Your task to perform on an android device: create a new album in the google photos Image 0: 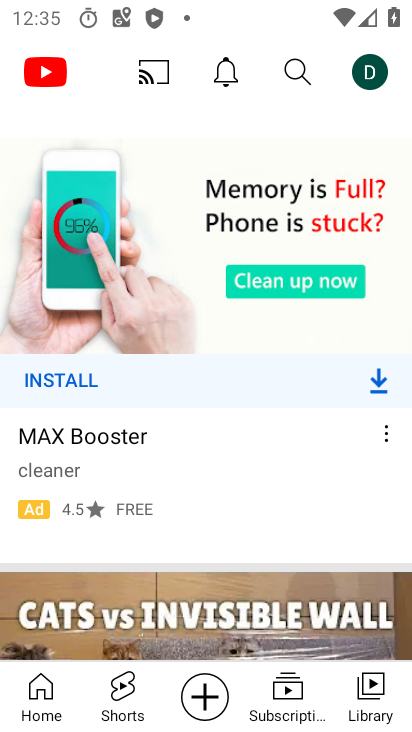
Step 0: press home button
Your task to perform on an android device: create a new album in the google photos Image 1: 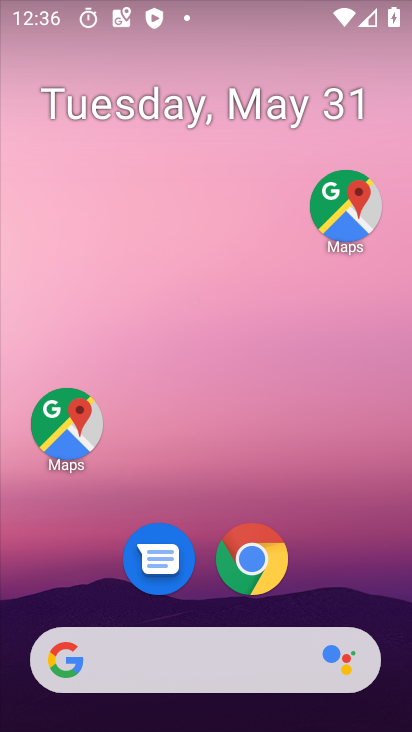
Step 1: drag from (359, 563) to (234, 98)
Your task to perform on an android device: create a new album in the google photos Image 2: 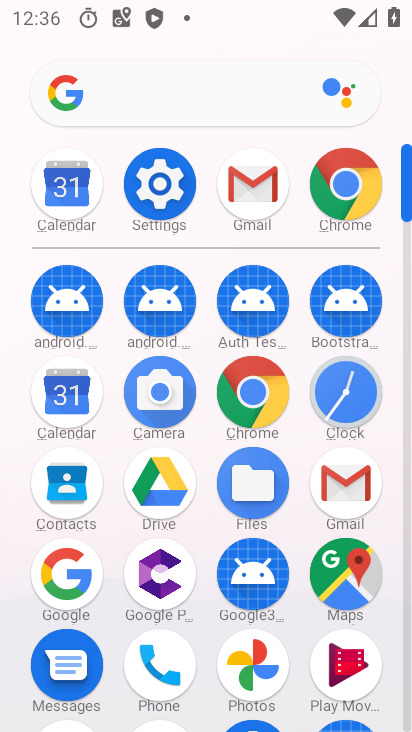
Step 2: click (241, 680)
Your task to perform on an android device: create a new album in the google photos Image 3: 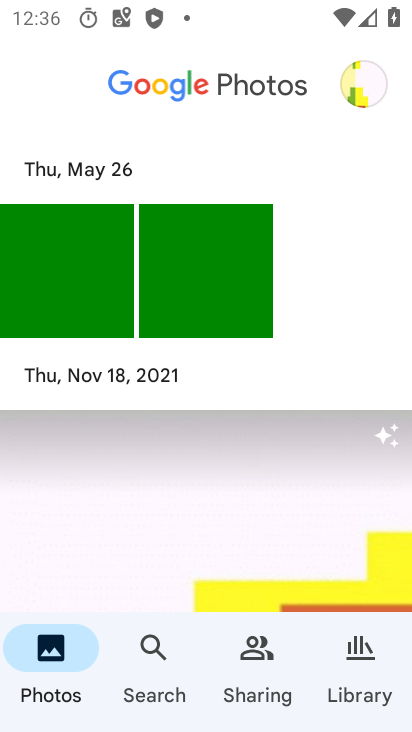
Step 3: click (356, 649)
Your task to perform on an android device: create a new album in the google photos Image 4: 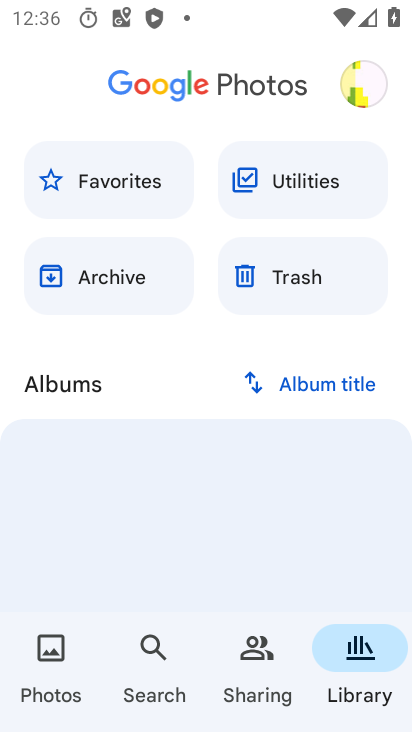
Step 4: drag from (318, 531) to (320, 199)
Your task to perform on an android device: create a new album in the google photos Image 5: 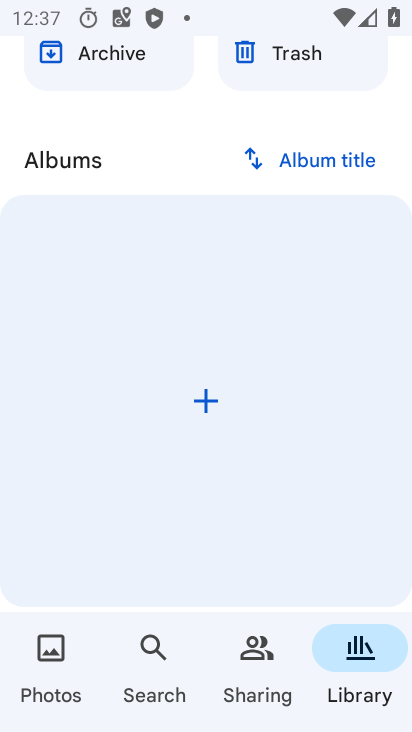
Step 5: click (217, 387)
Your task to perform on an android device: create a new album in the google photos Image 6: 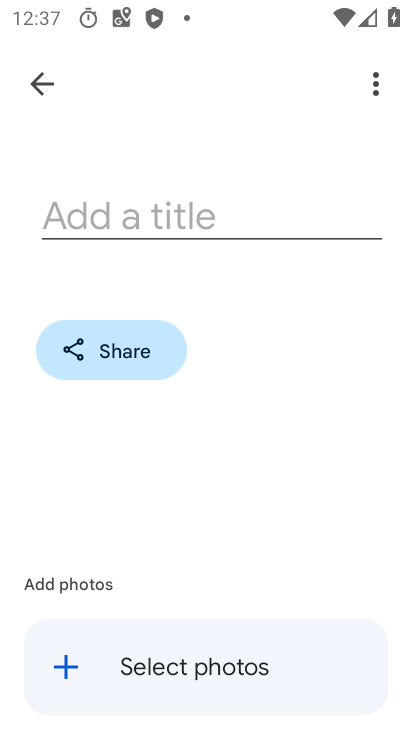
Step 6: click (229, 221)
Your task to perform on an android device: create a new album in the google photos Image 7: 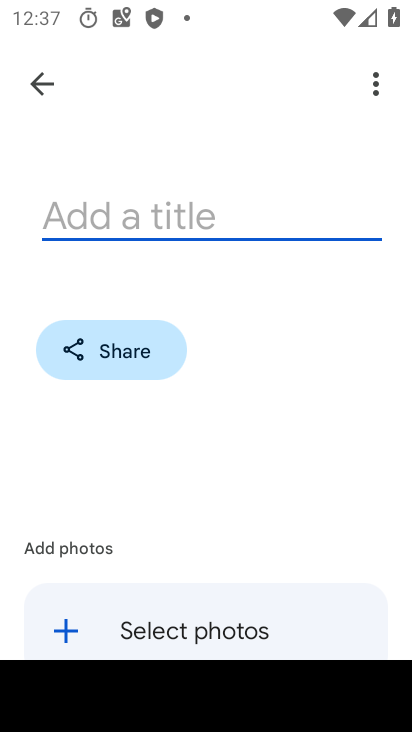
Step 7: type "kendi"
Your task to perform on an android device: create a new album in the google photos Image 8: 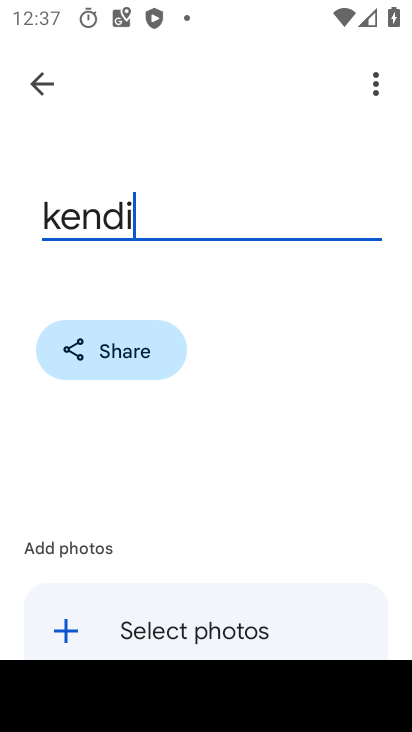
Step 8: click (255, 623)
Your task to perform on an android device: create a new album in the google photos Image 9: 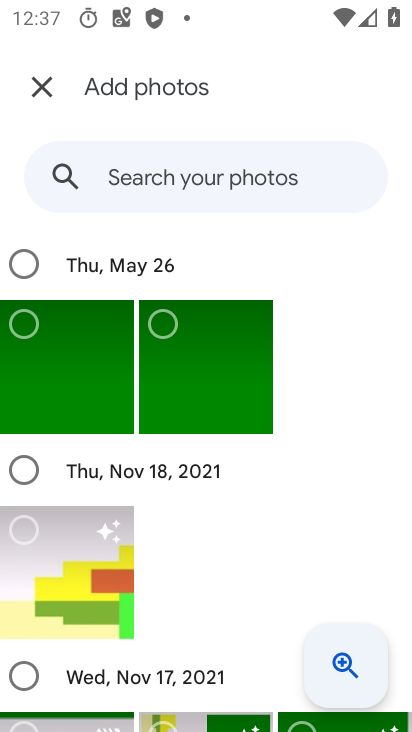
Step 9: click (38, 330)
Your task to perform on an android device: create a new album in the google photos Image 10: 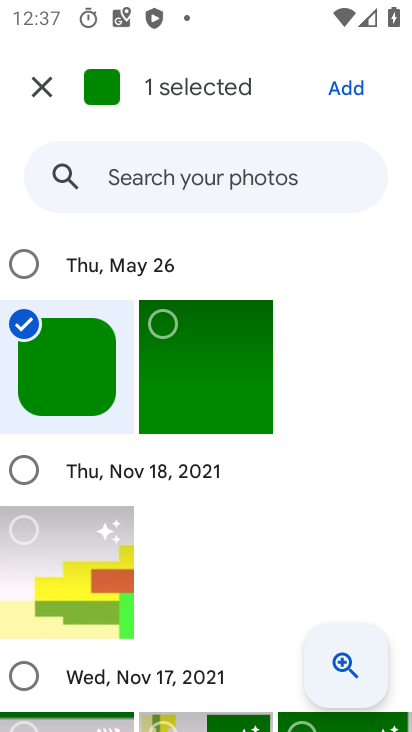
Step 10: click (358, 81)
Your task to perform on an android device: create a new album in the google photos Image 11: 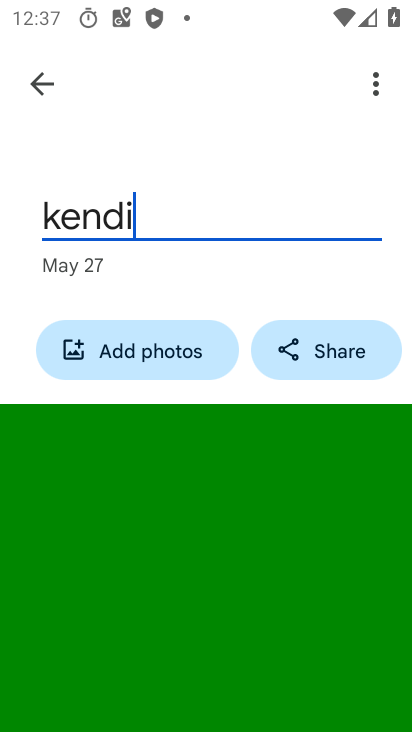
Step 11: click (51, 83)
Your task to perform on an android device: create a new album in the google photos Image 12: 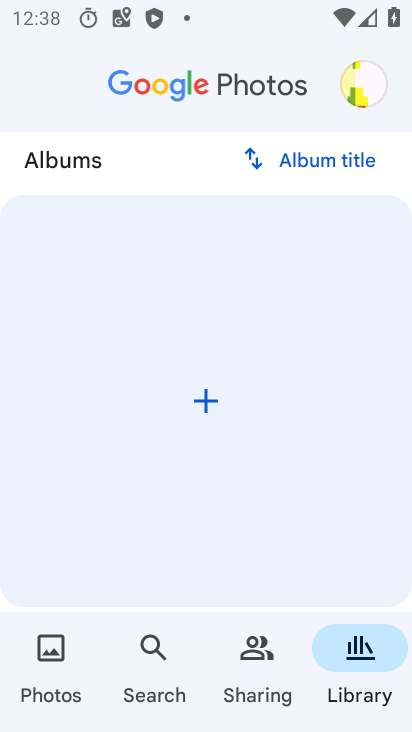
Step 12: click (217, 397)
Your task to perform on an android device: create a new album in the google photos Image 13: 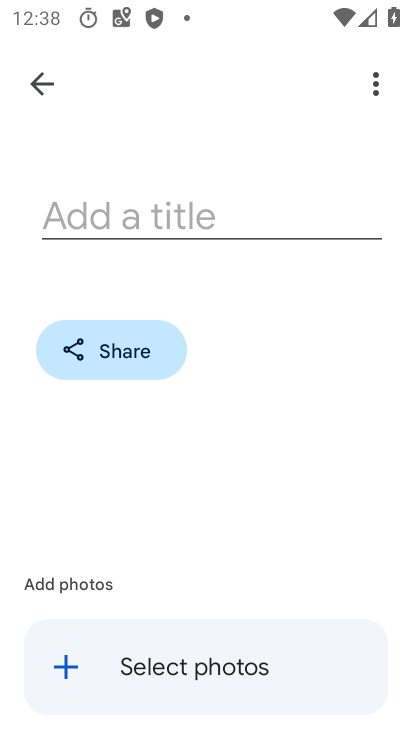
Step 13: click (193, 204)
Your task to perform on an android device: create a new album in the google photos Image 14: 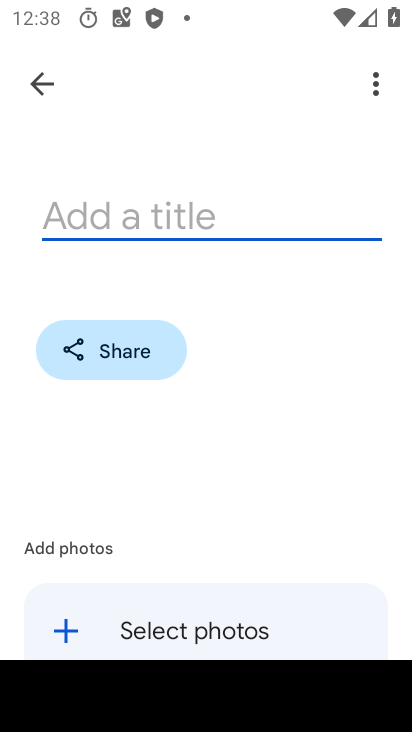
Step 14: type "kendi"
Your task to perform on an android device: create a new album in the google photos Image 15: 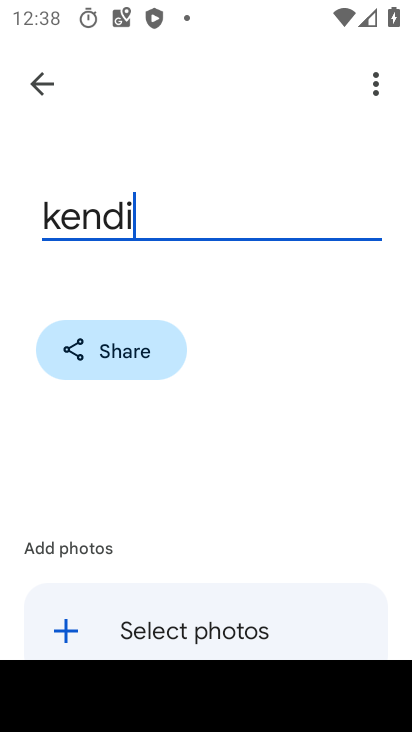
Step 15: click (228, 624)
Your task to perform on an android device: create a new album in the google photos Image 16: 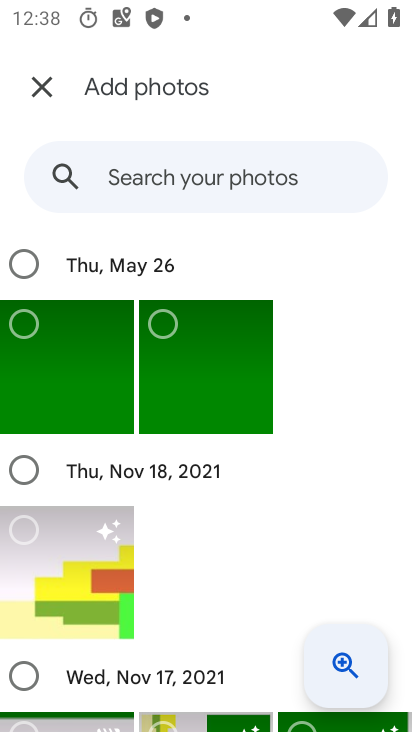
Step 16: click (36, 368)
Your task to perform on an android device: create a new album in the google photos Image 17: 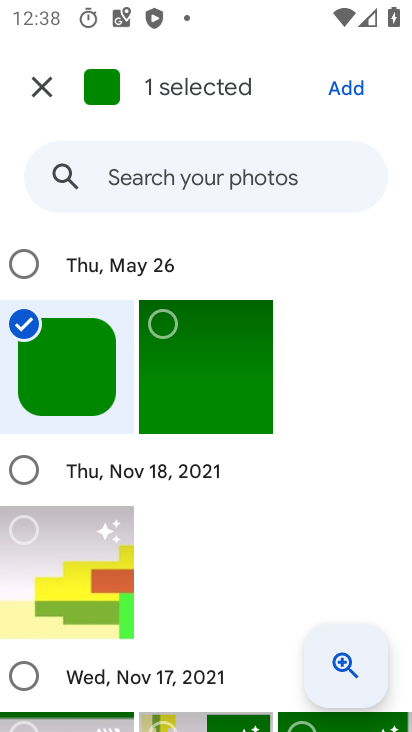
Step 17: click (362, 81)
Your task to perform on an android device: create a new album in the google photos Image 18: 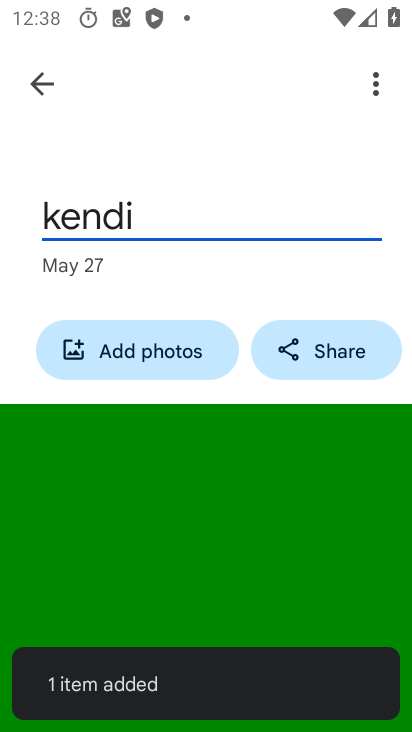
Step 18: press enter
Your task to perform on an android device: create a new album in the google photos Image 19: 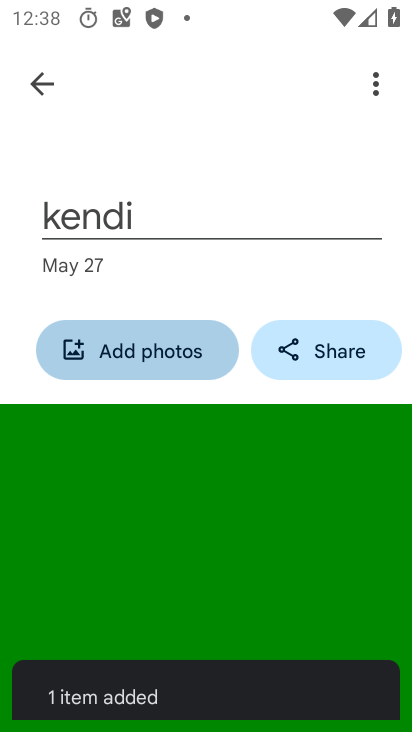
Step 19: click (239, 396)
Your task to perform on an android device: create a new album in the google photos Image 20: 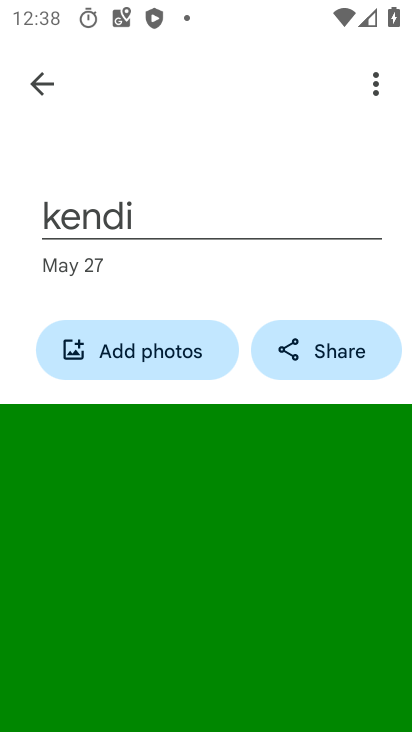
Step 20: press enter
Your task to perform on an android device: create a new album in the google photos Image 21: 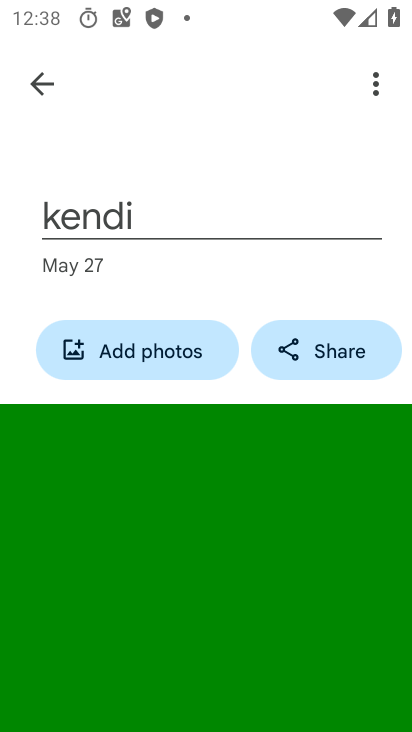
Step 21: press enter
Your task to perform on an android device: create a new album in the google photos Image 22: 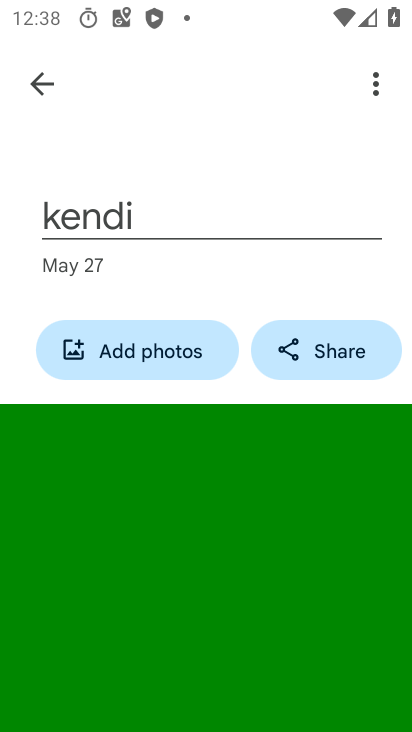
Step 22: press enter
Your task to perform on an android device: create a new album in the google photos Image 23: 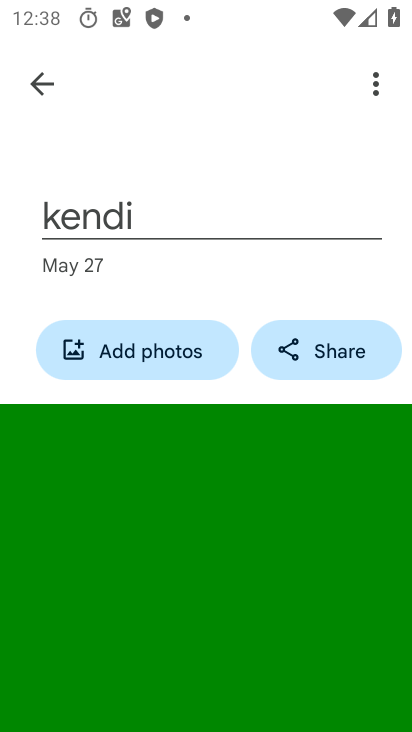
Step 23: click (176, 716)
Your task to perform on an android device: create a new album in the google photos Image 24: 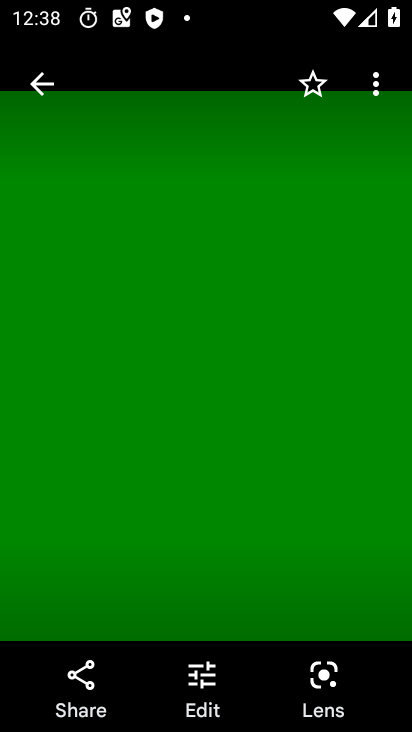
Step 24: click (39, 82)
Your task to perform on an android device: create a new album in the google photos Image 25: 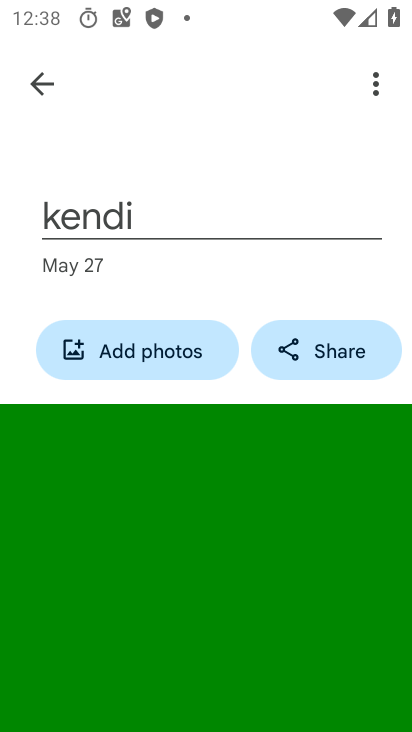
Step 25: click (381, 78)
Your task to perform on an android device: create a new album in the google photos Image 26: 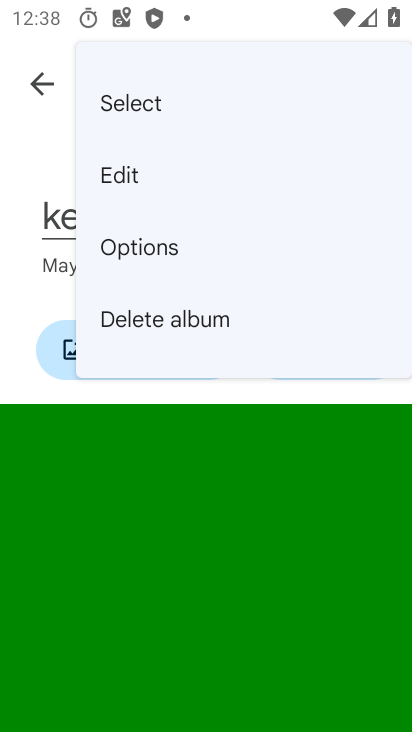
Step 26: click (137, 109)
Your task to perform on an android device: create a new album in the google photos Image 27: 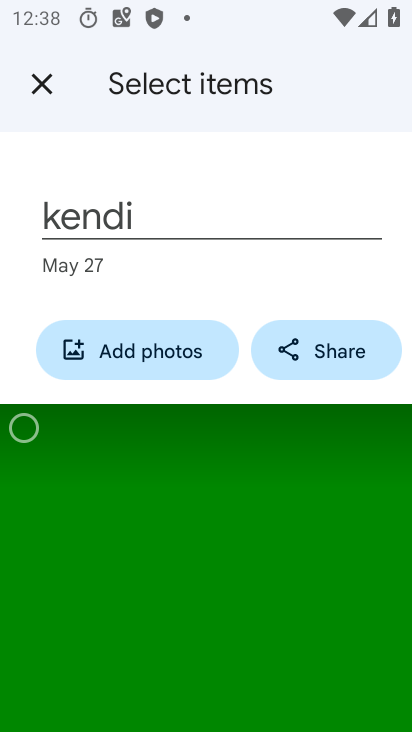
Step 27: press enter
Your task to perform on an android device: create a new album in the google photos Image 28: 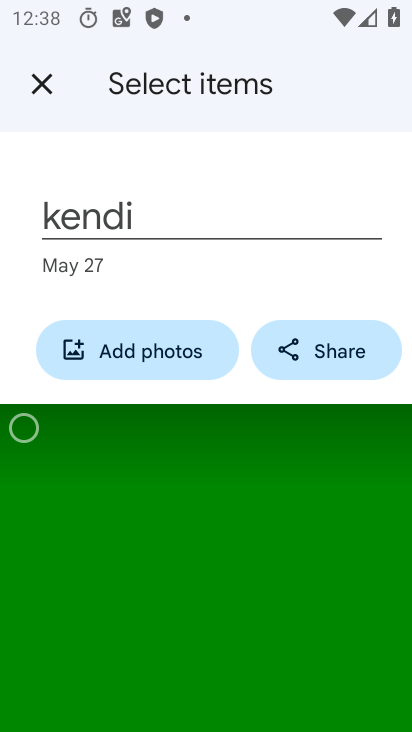
Step 28: click (260, 548)
Your task to perform on an android device: create a new album in the google photos Image 29: 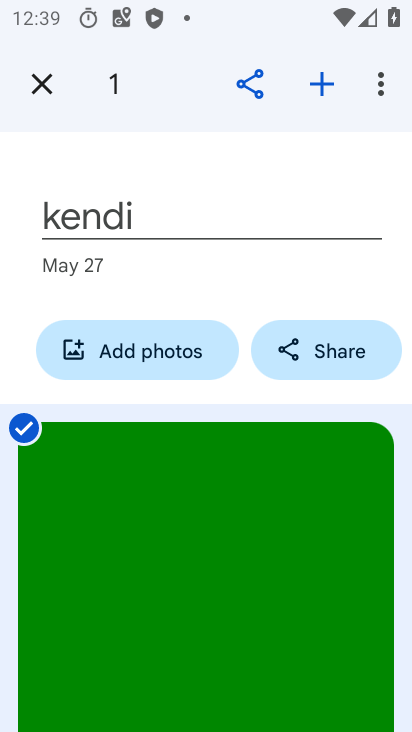
Step 29: press enter
Your task to perform on an android device: create a new album in the google photos Image 30: 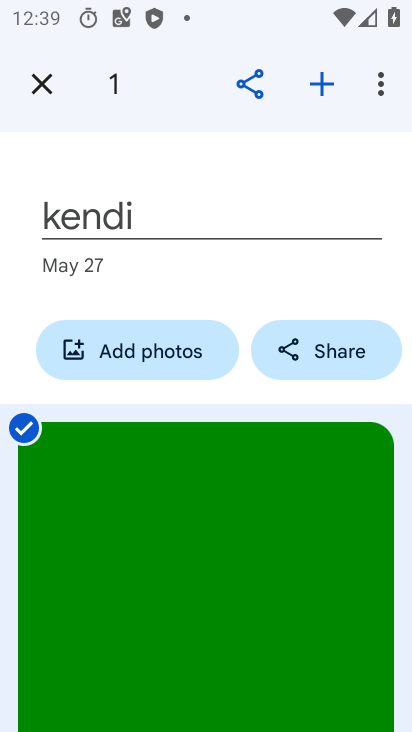
Step 30: press enter
Your task to perform on an android device: create a new album in the google photos Image 31: 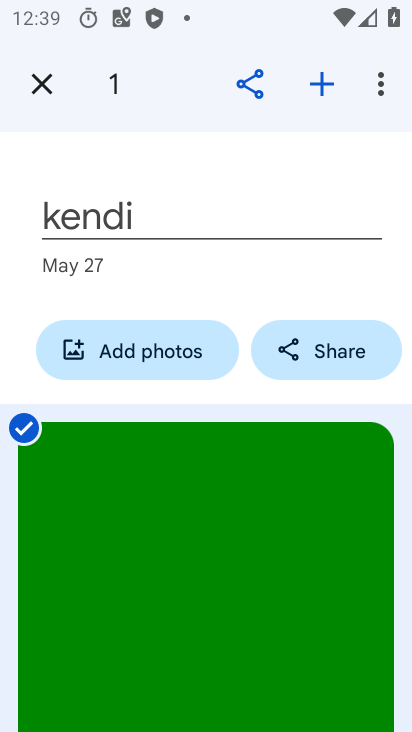
Step 31: press enter
Your task to perform on an android device: create a new album in the google photos Image 32: 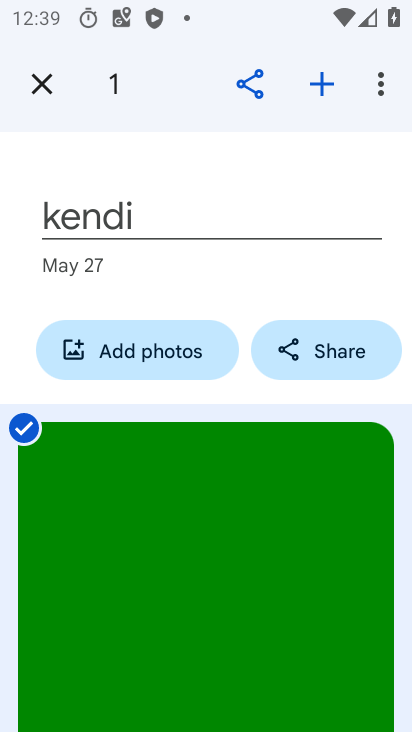
Step 32: press enter
Your task to perform on an android device: create a new album in the google photos Image 33: 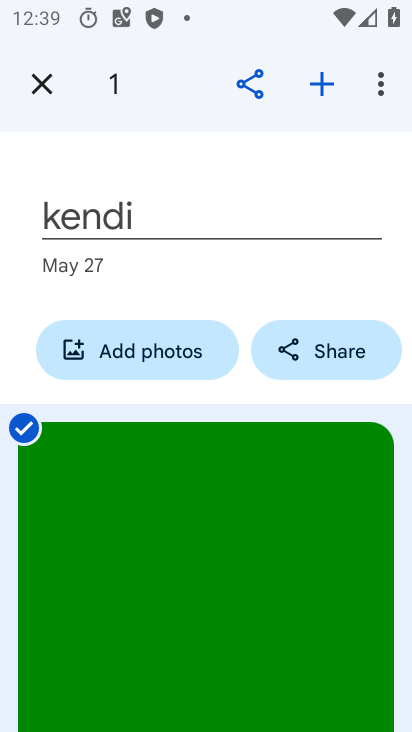
Step 33: click (384, 85)
Your task to perform on an android device: create a new album in the google photos Image 34: 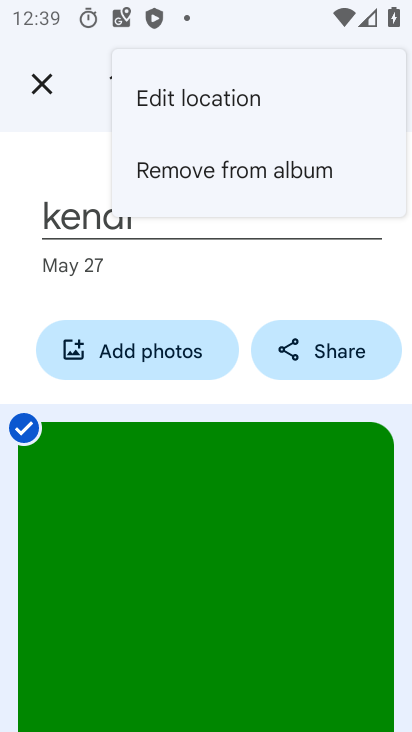
Step 34: click (34, 81)
Your task to perform on an android device: create a new album in the google photos Image 35: 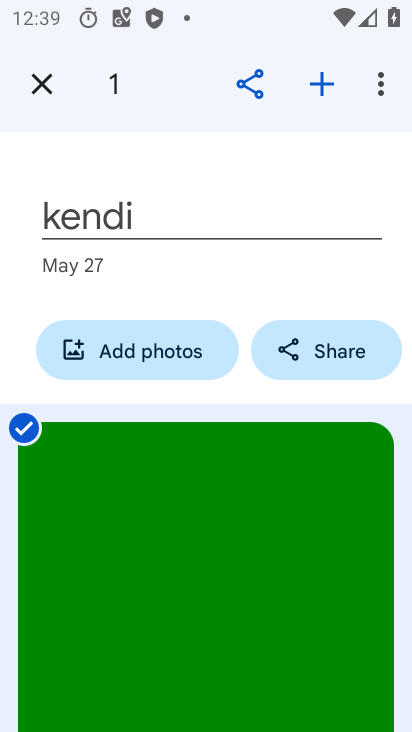
Step 35: click (35, 80)
Your task to perform on an android device: create a new album in the google photos Image 36: 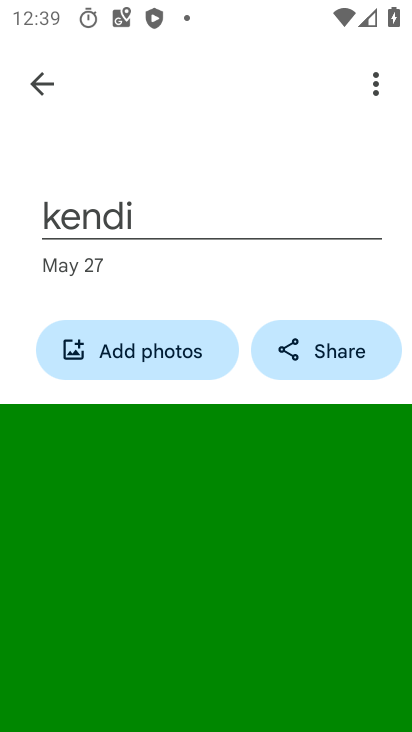
Step 36: drag from (267, 548) to (283, 39)
Your task to perform on an android device: create a new album in the google photos Image 37: 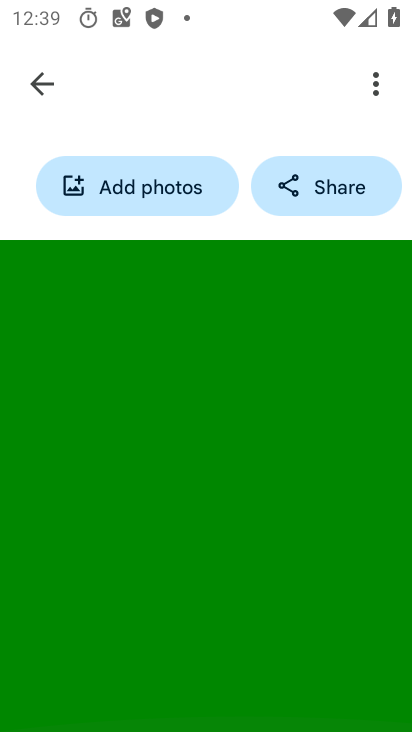
Step 37: drag from (265, 511) to (285, 78)
Your task to perform on an android device: create a new album in the google photos Image 38: 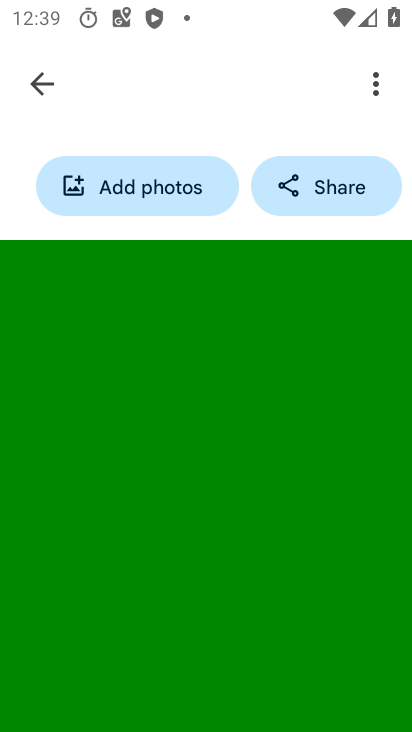
Step 38: drag from (236, 440) to (206, 13)
Your task to perform on an android device: create a new album in the google photos Image 39: 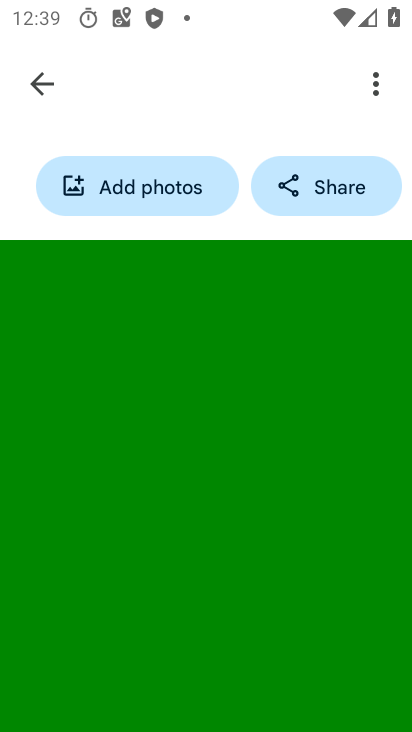
Step 39: click (43, 92)
Your task to perform on an android device: create a new album in the google photos Image 40: 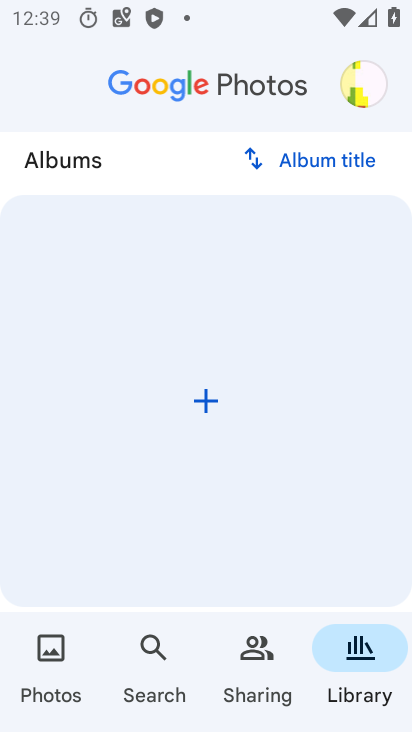
Step 40: task complete